Your task to perform on an android device: turn on data saver in the chrome app Image 0: 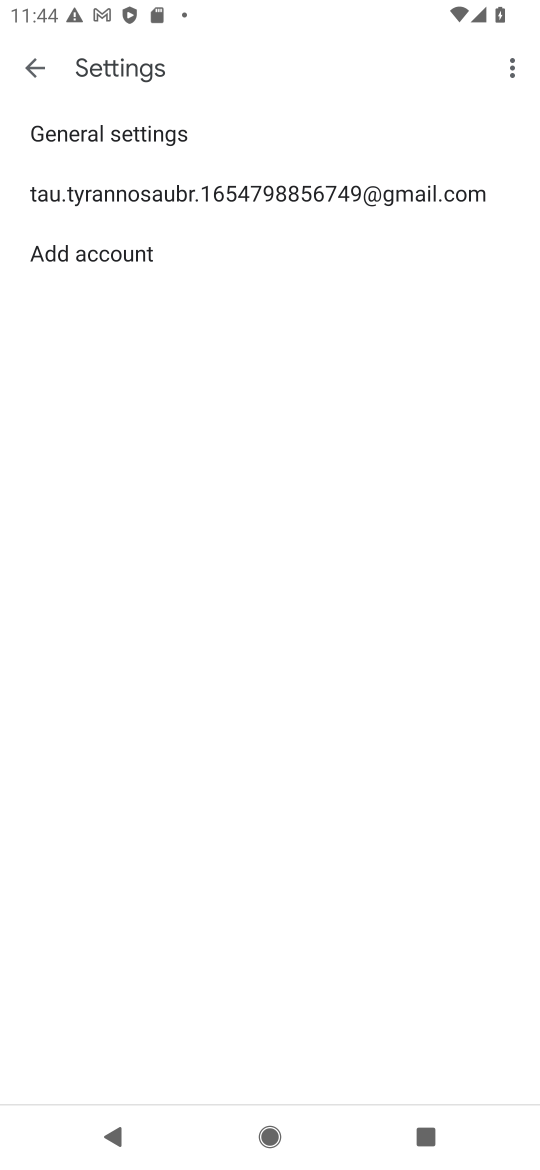
Step 0: press home button
Your task to perform on an android device: turn on data saver in the chrome app Image 1: 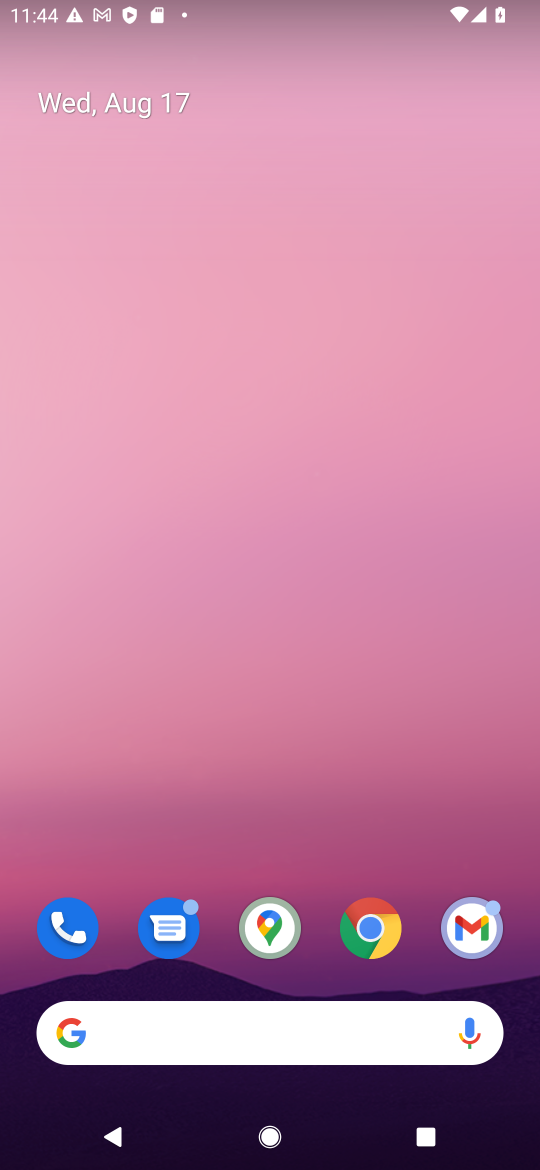
Step 1: click (358, 923)
Your task to perform on an android device: turn on data saver in the chrome app Image 2: 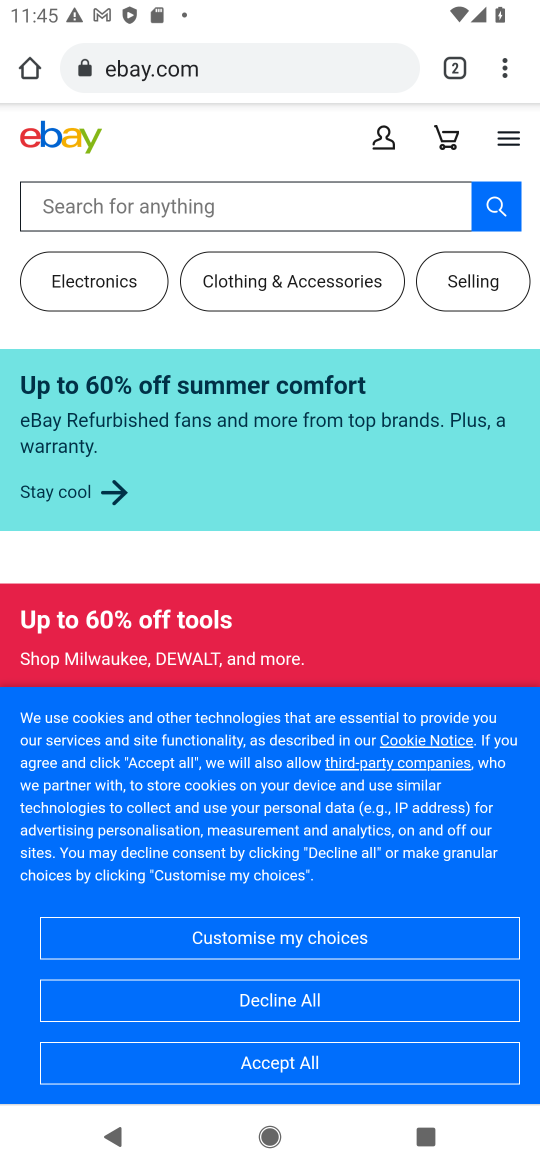
Step 2: click (504, 58)
Your task to perform on an android device: turn on data saver in the chrome app Image 3: 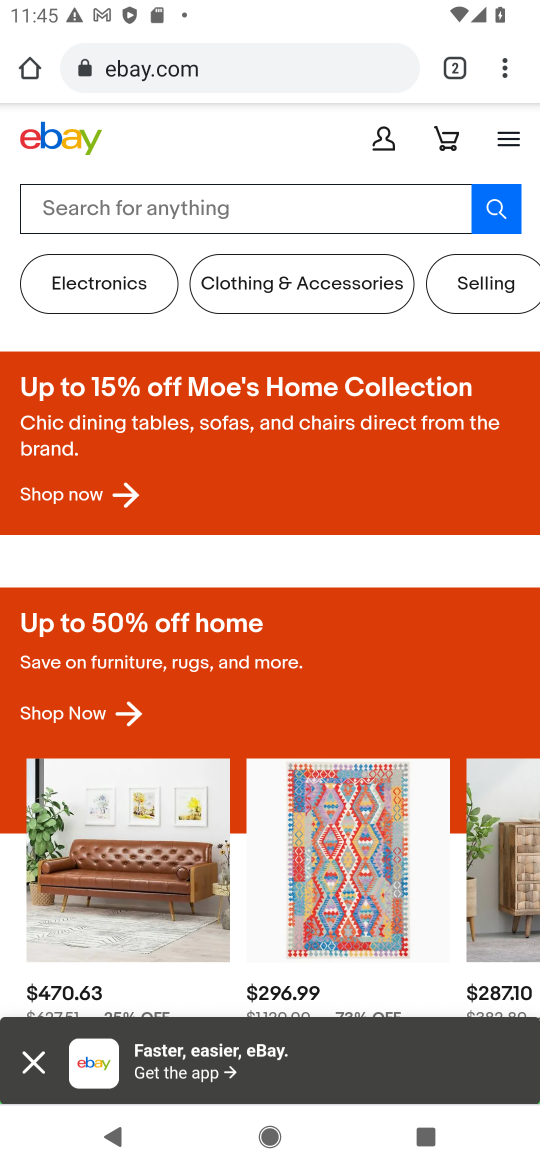
Step 3: click (507, 68)
Your task to perform on an android device: turn on data saver in the chrome app Image 4: 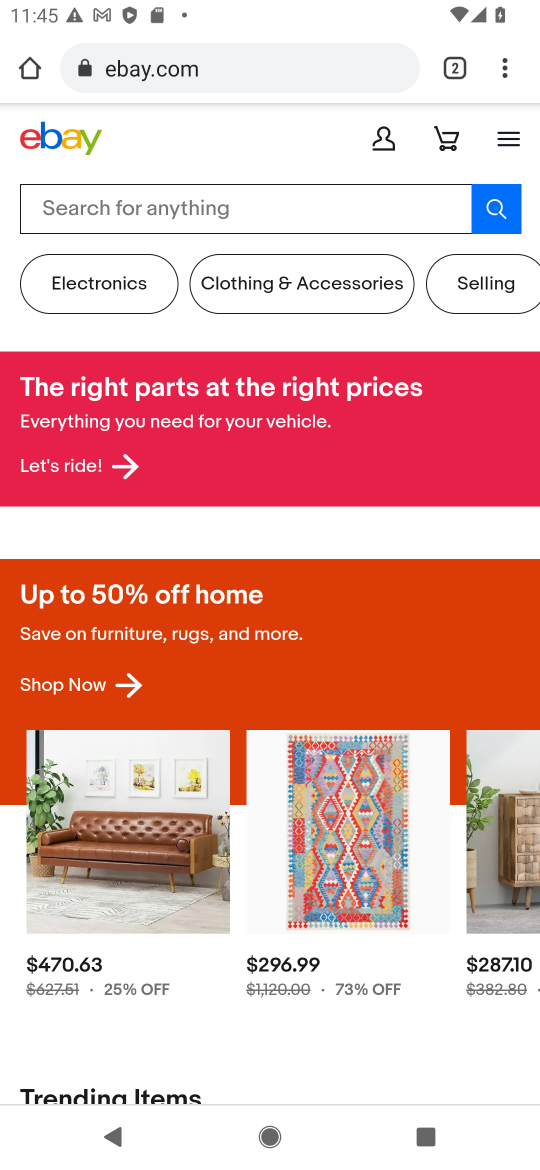
Step 4: click (507, 68)
Your task to perform on an android device: turn on data saver in the chrome app Image 5: 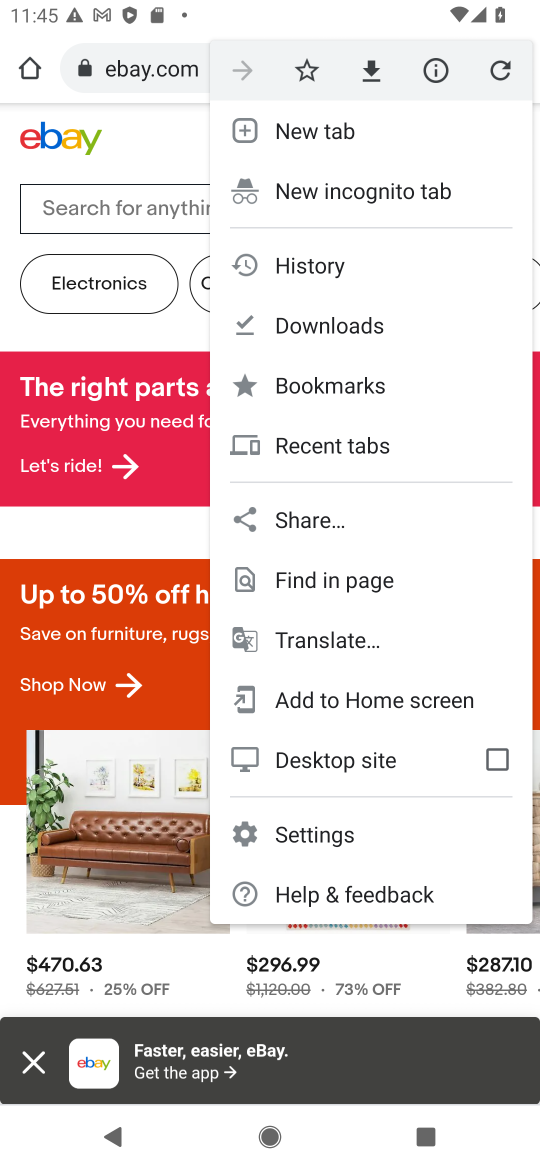
Step 5: click (325, 819)
Your task to perform on an android device: turn on data saver in the chrome app Image 6: 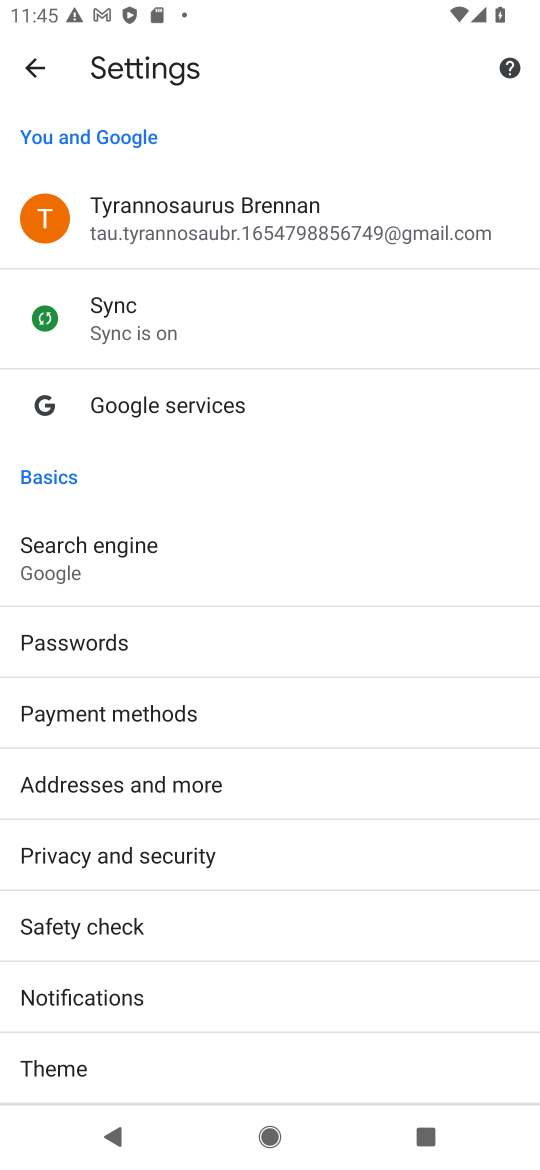
Step 6: drag from (204, 955) to (215, 486)
Your task to perform on an android device: turn on data saver in the chrome app Image 7: 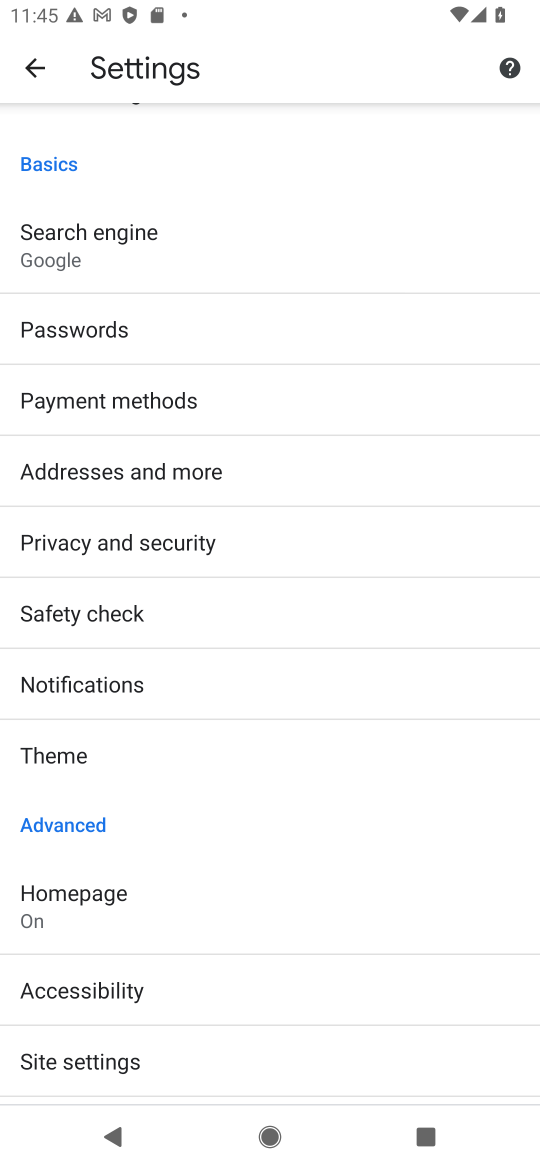
Step 7: drag from (175, 945) to (186, 558)
Your task to perform on an android device: turn on data saver in the chrome app Image 8: 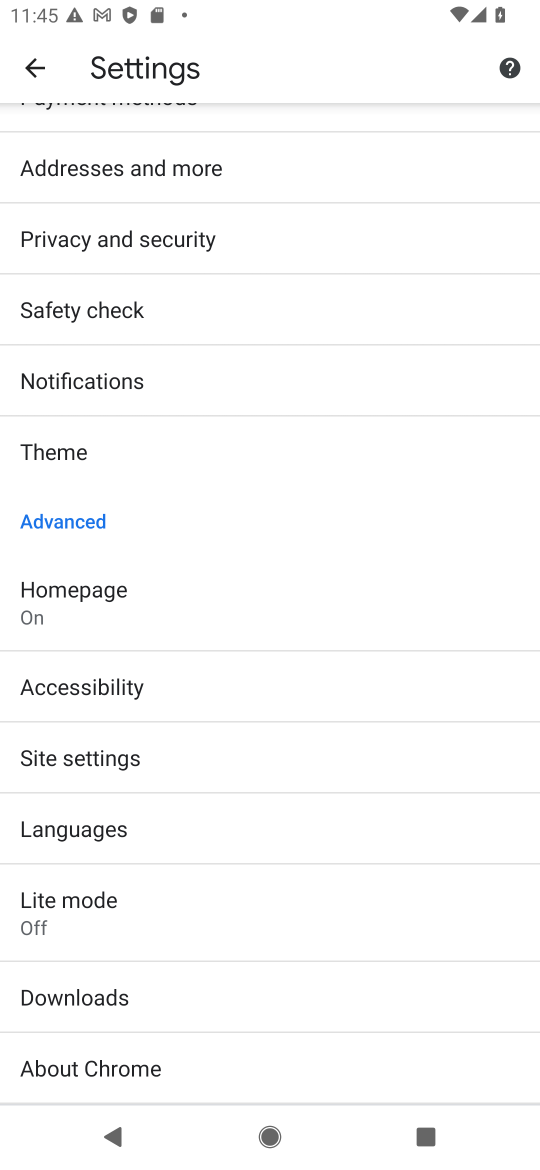
Step 8: click (180, 769)
Your task to perform on an android device: turn on data saver in the chrome app Image 9: 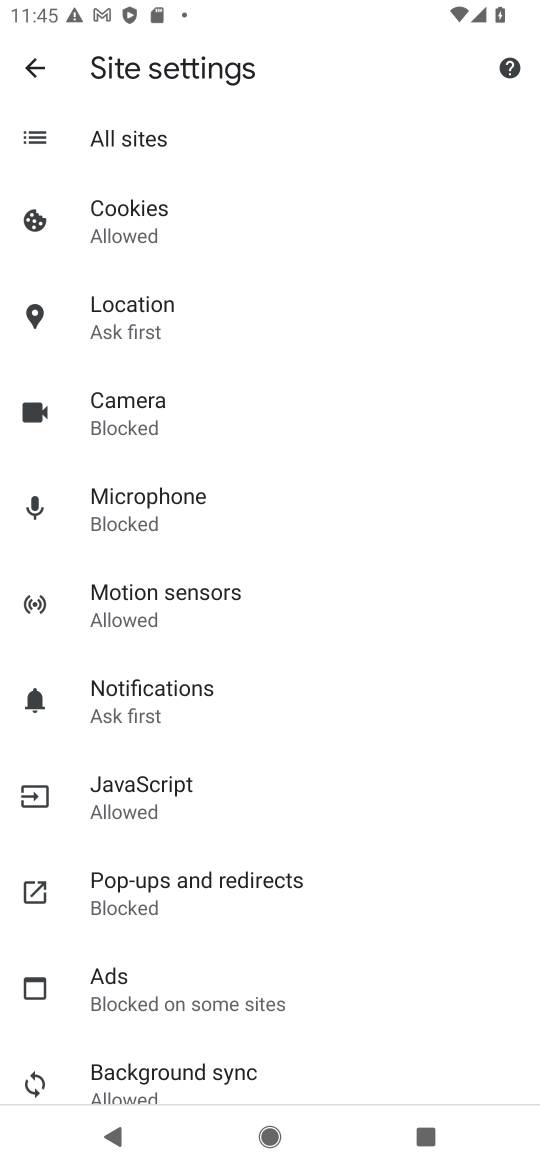
Step 9: click (37, 61)
Your task to perform on an android device: turn on data saver in the chrome app Image 10: 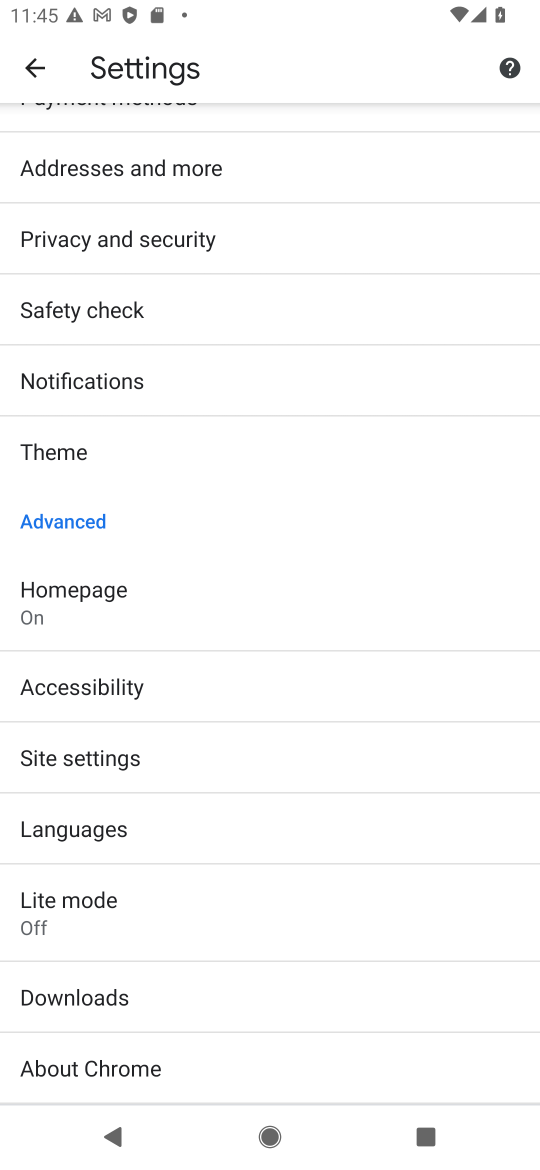
Step 10: click (175, 898)
Your task to perform on an android device: turn on data saver in the chrome app Image 11: 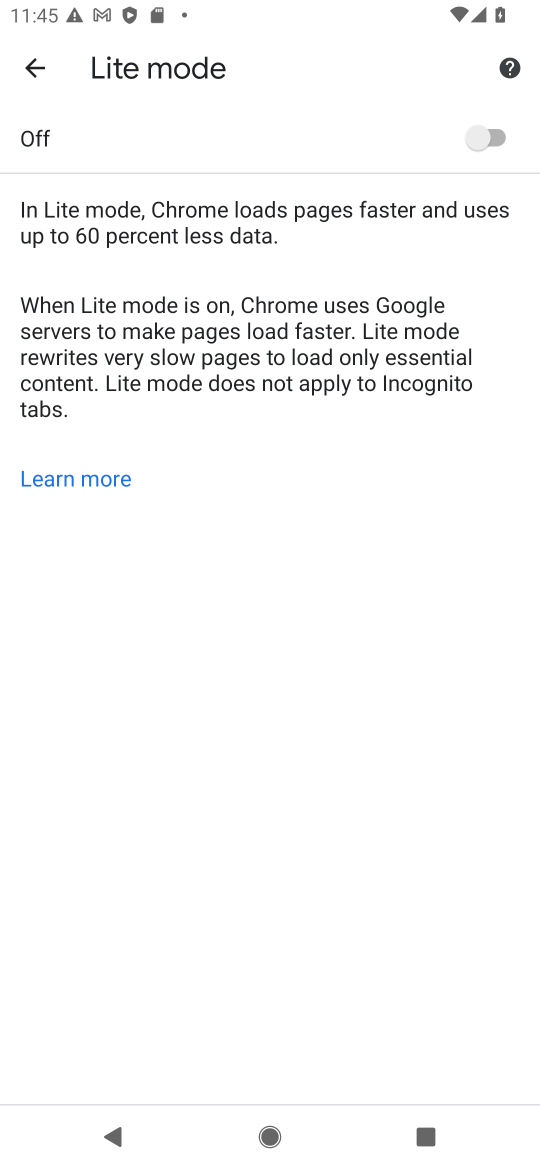
Step 11: click (495, 131)
Your task to perform on an android device: turn on data saver in the chrome app Image 12: 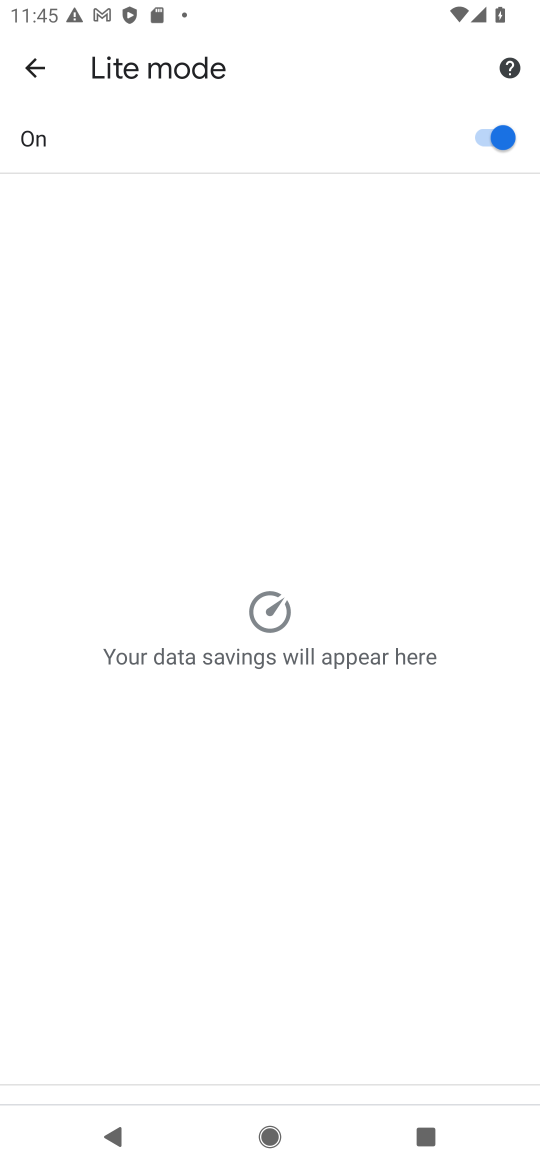
Step 12: task complete